Your task to perform on an android device: Open my contact list Image 0: 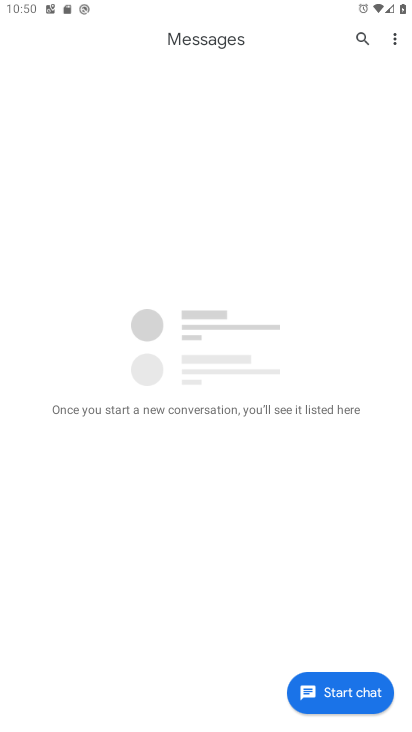
Step 0: press home button
Your task to perform on an android device: Open my contact list Image 1: 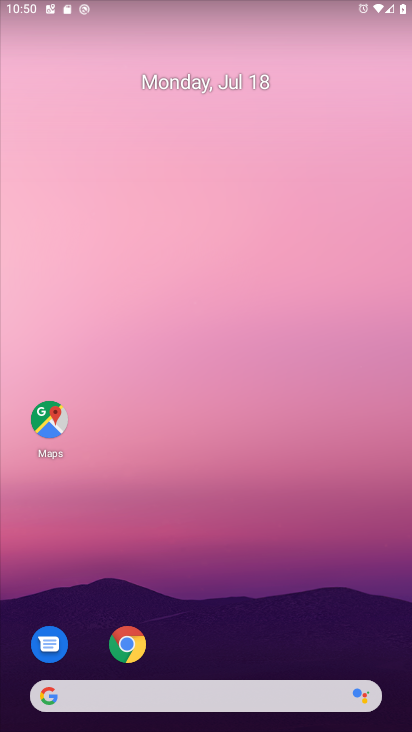
Step 1: drag from (265, 652) to (255, 104)
Your task to perform on an android device: Open my contact list Image 2: 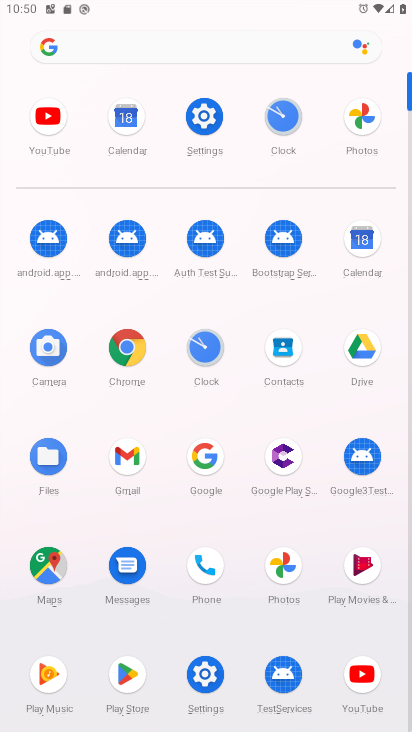
Step 2: click (268, 356)
Your task to perform on an android device: Open my contact list Image 3: 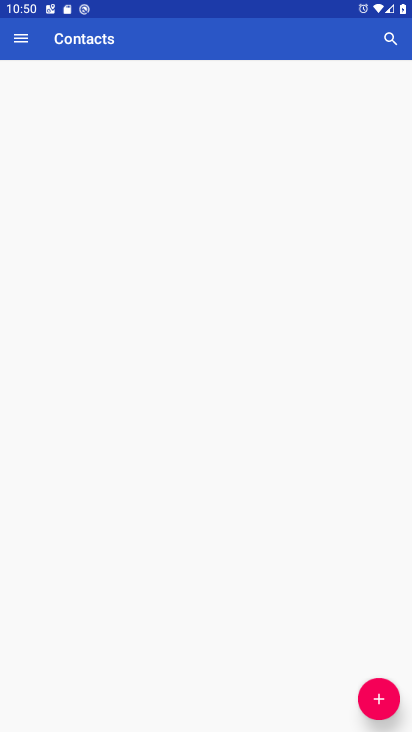
Step 3: task complete